Your task to perform on an android device: Do I have any events this weekend? Image 0: 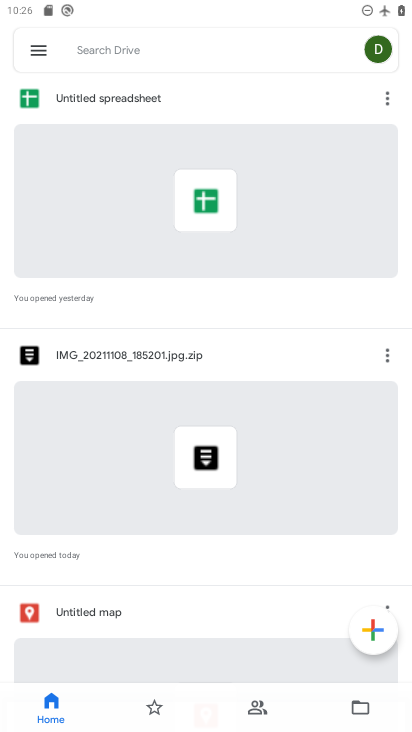
Step 0: press home button
Your task to perform on an android device: Do I have any events this weekend? Image 1: 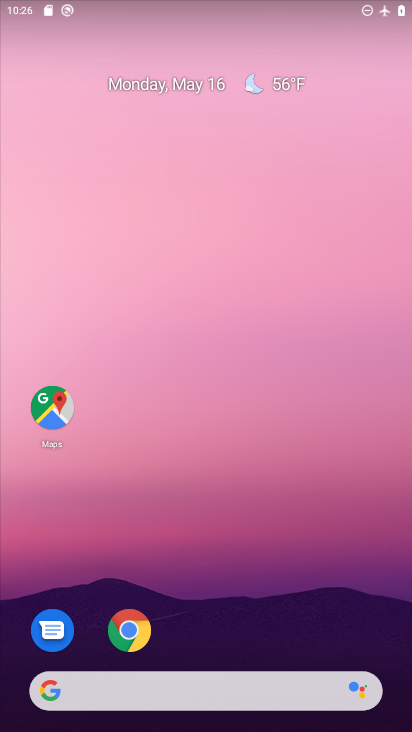
Step 1: drag from (254, 647) to (264, 19)
Your task to perform on an android device: Do I have any events this weekend? Image 2: 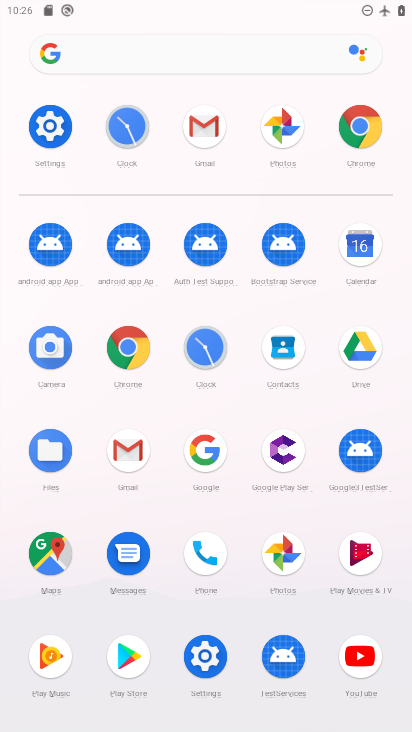
Step 2: click (349, 257)
Your task to perform on an android device: Do I have any events this weekend? Image 3: 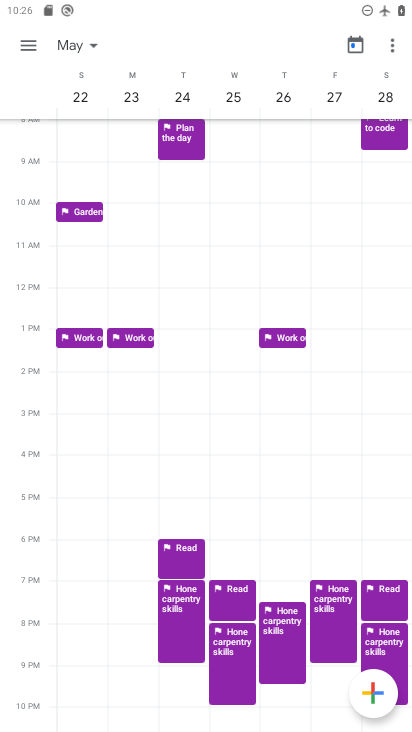
Step 3: task complete